Your task to perform on an android device: clear history in the chrome app Image 0: 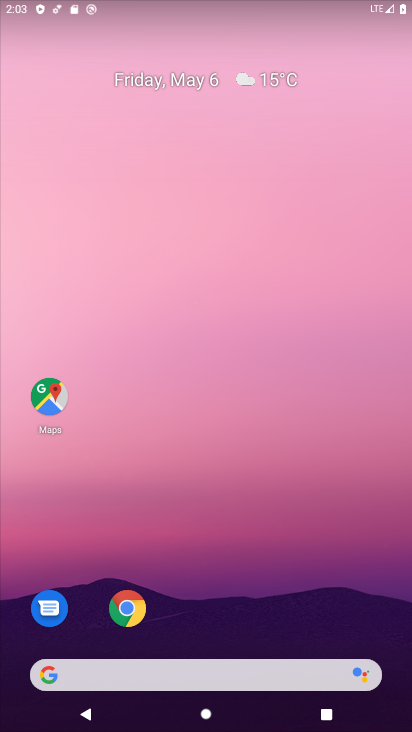
Step 0: click (126, 608)
Your task to perform on an android device: clear history in the chrome app Image 1: 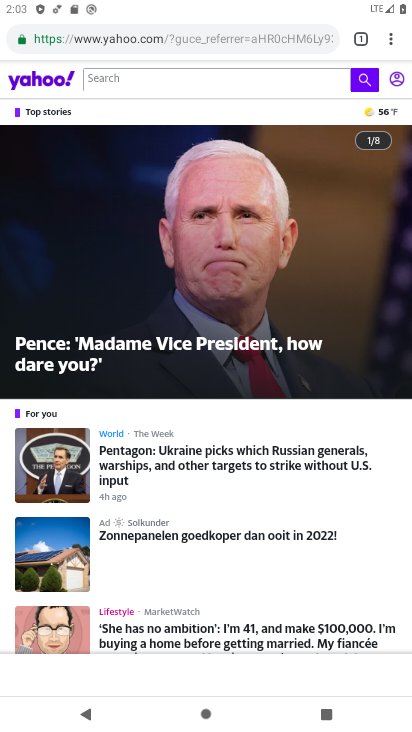
Step 1: click (393, 39)
Your task to perform on an android device: clear history in the chrome app Image 2: 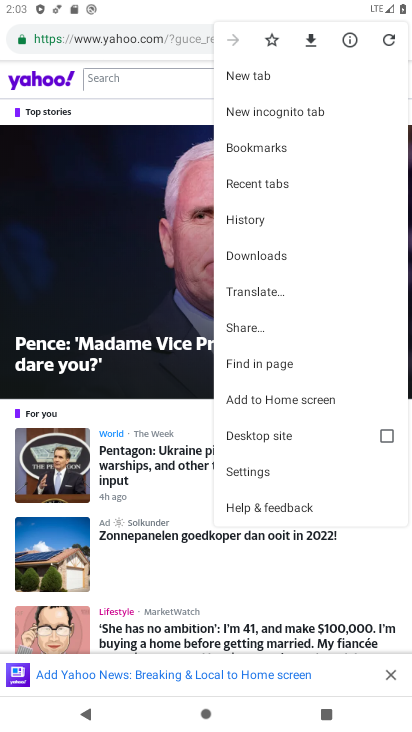
Step 2: click (250, 224)
Your task to perform on an android device: clear history in the chrome app Image 3: 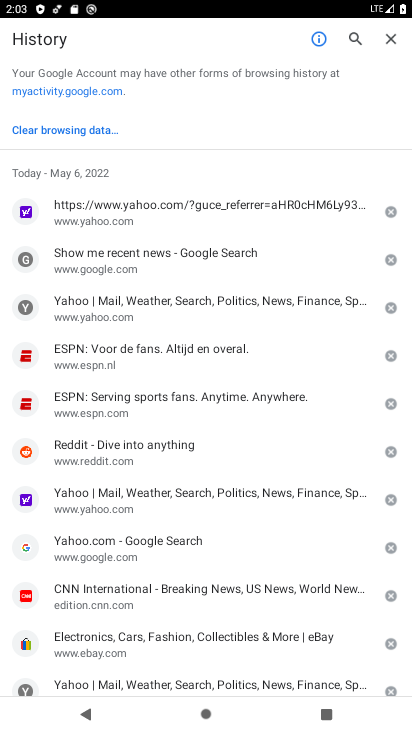
Step 3: click (96, 132)
Your task to perform on an android device: clear history in the chrome app Image 4: 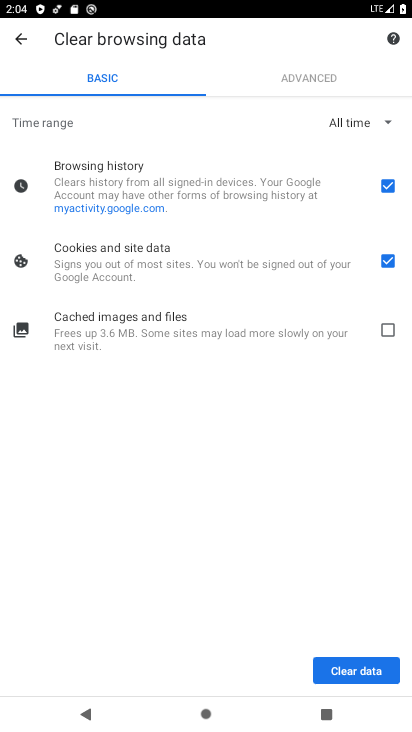
Step 4: click (355, 667)
Your task to perform on an android device: clear history in the chrome app Image 5: 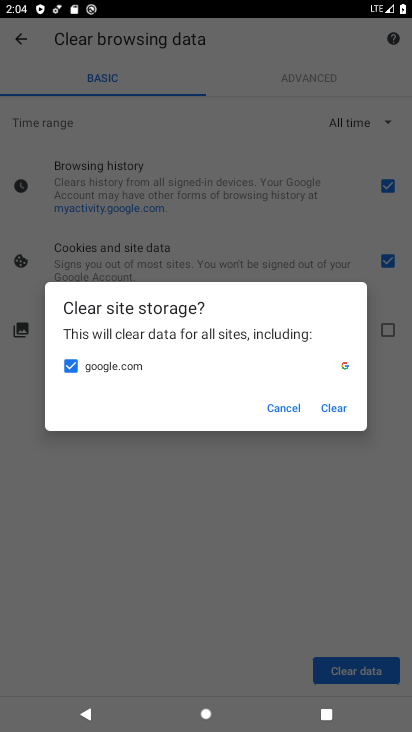
Step 5: click (342, 404)
Your task to perform on an android device: clear history in the chrome app Image 6: 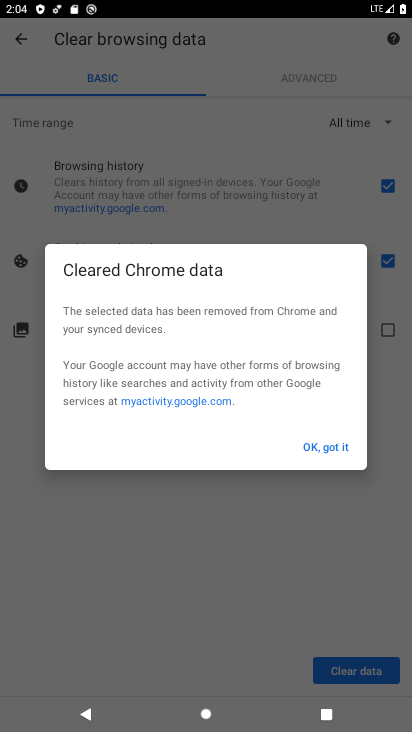
Step 6: click (319, 444)
Your task to perform on an android device: clear history in the chrome app Image 7: 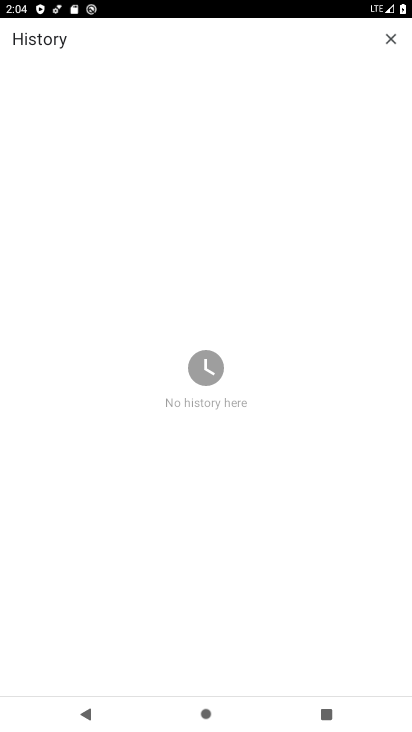
Step 7: task complete